Your task to perform on an android device: Open Youtube and go to the subscriptions tab Image 0: 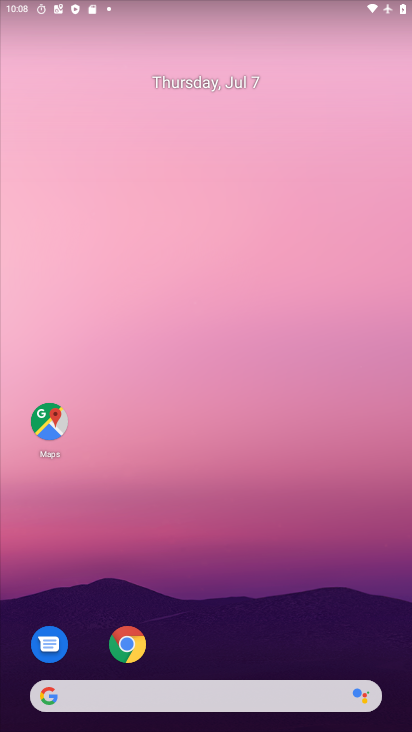
Step 0: drag from (272, 580) to (230, 134)
Your task to perform on an android device: Open Youtube and go to the subscriptions tab Image 1: 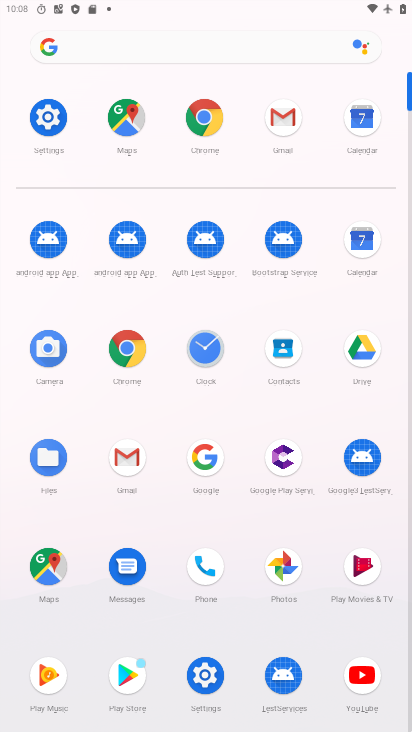
Step 1: click (367, 683)
Your task to perform on an android device: Open Youtube and go to the subscriptions tab Image 2: 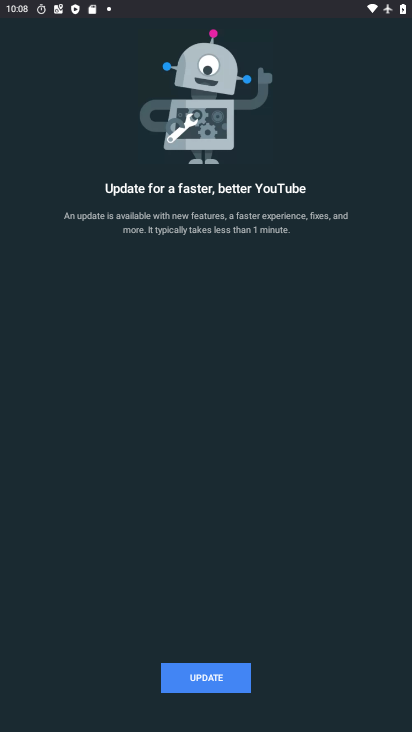
Step 2: task complete